Your task to perform on an android device: open chrome privacy settings Image 0: 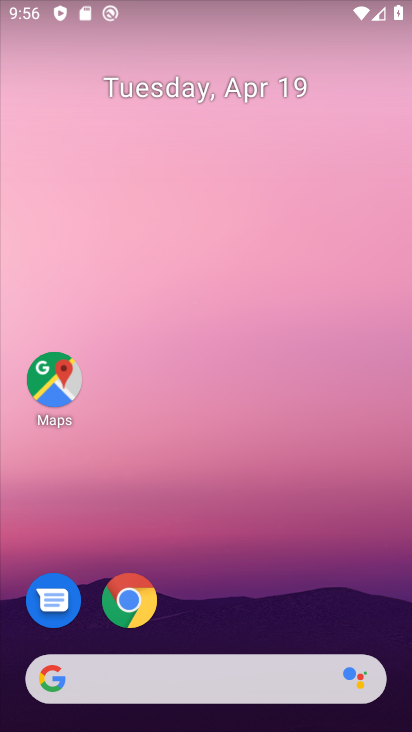
Step 0: click (131, 603)
Your task to perform on an android device: open chrome privacy settings Image 1: 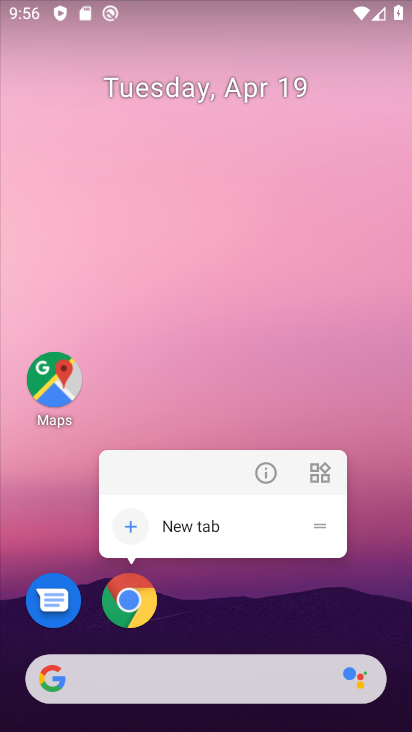
Step 1: click (133, 590)
Your task to perform on an android device: open chrome privacy settings Image 2: 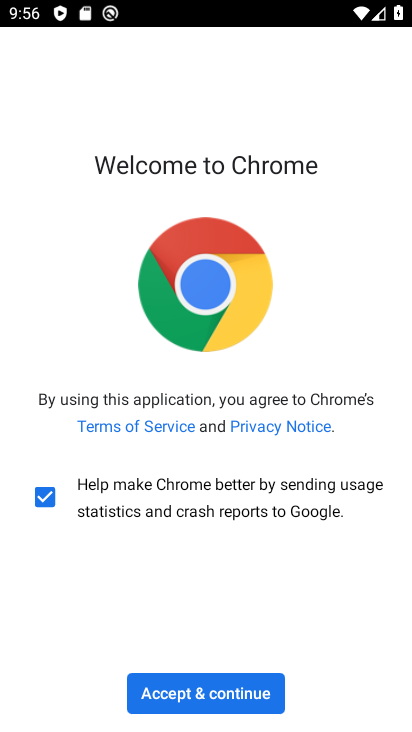
Step 2: click (212, 690)
Your task to perform on an android device: open chrome privacy settings Image 3: 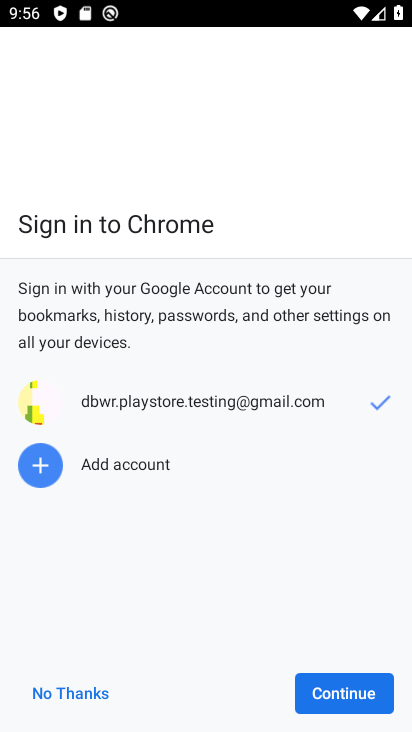
Step 3: click (349, 687)
Your task to perform on an android device: open chrome privacy settings Image 4: 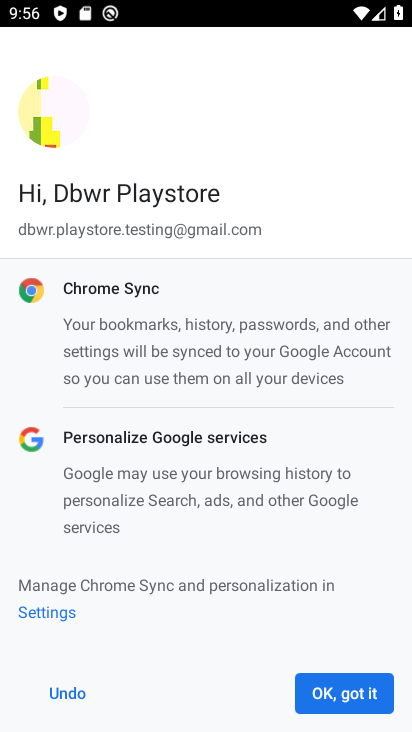
Step 4: click (349, 687)
Your task to perform on an android device: open chrome privacy settings Image 5: 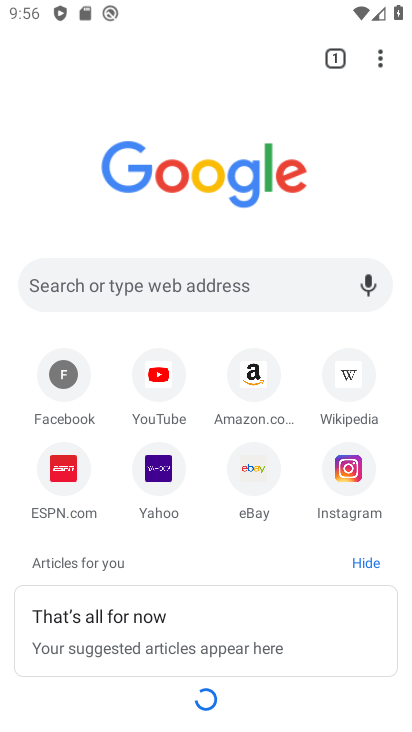
Step 5: click (389, 54)
Your task to perform on an android device: open chrome privacy settings Image 6: 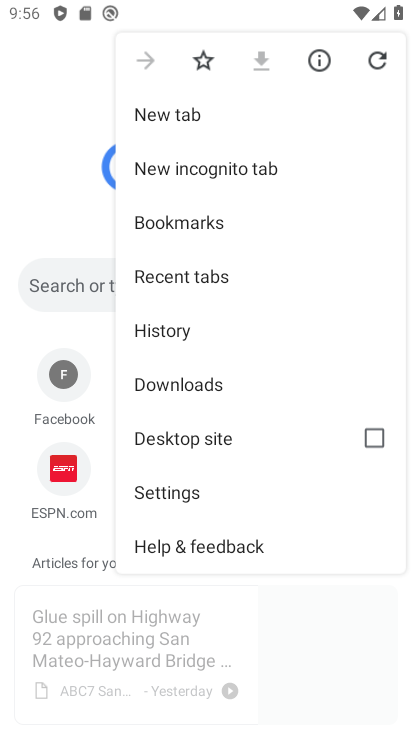
Step 6: click (174, 487)
Your task to perform on an android device: open chrome privacy settings Image 7: 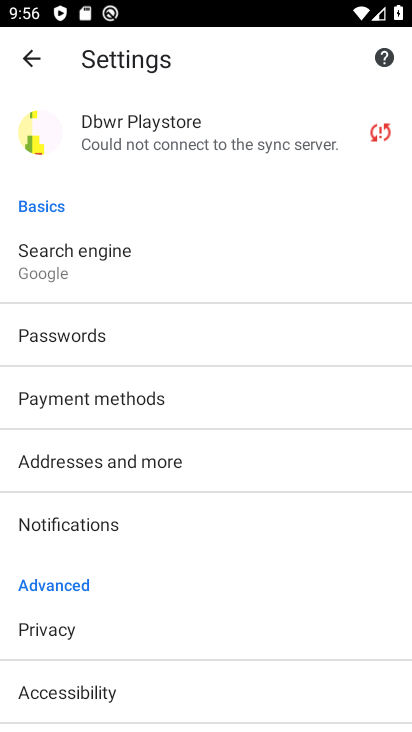
Step 7: click (64, 626)
Your task to perform on an android device: open chrome privacy settings Image 8: 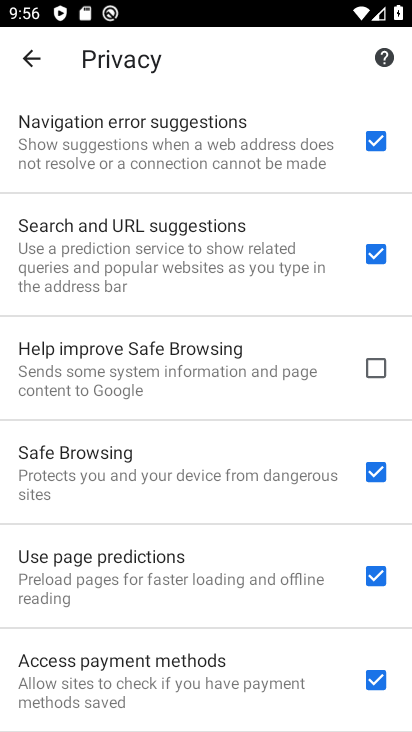
Step 8: task complete